Your task to perform on an android device: Check the weather Image 0: 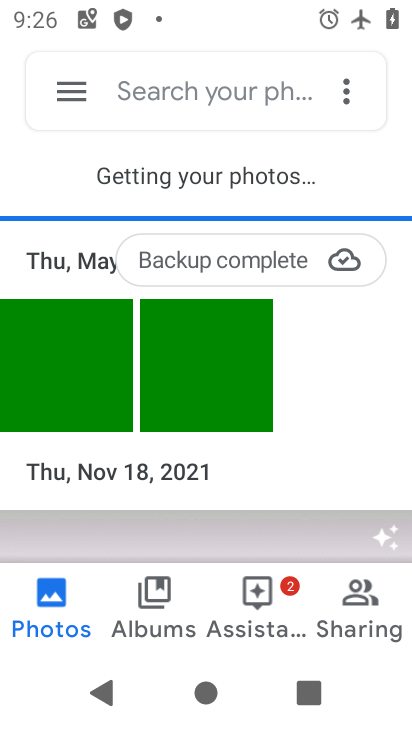
Step 0: press home button
Your task to perform on an android device: Check the weather Image 1: 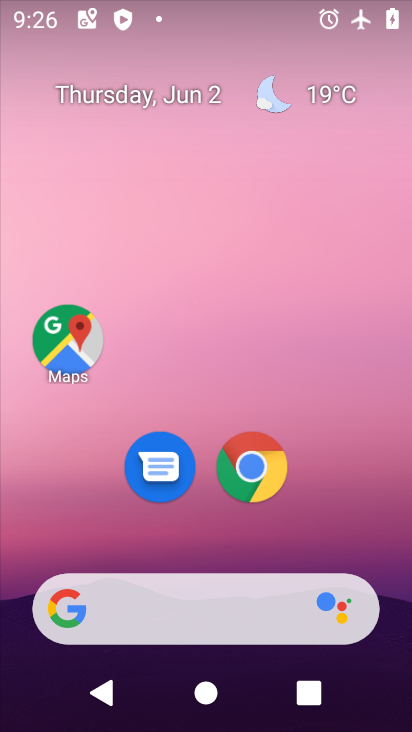
Step 1: click (191, 614)
Your task to perform on an android device: Check the weather Image 2: 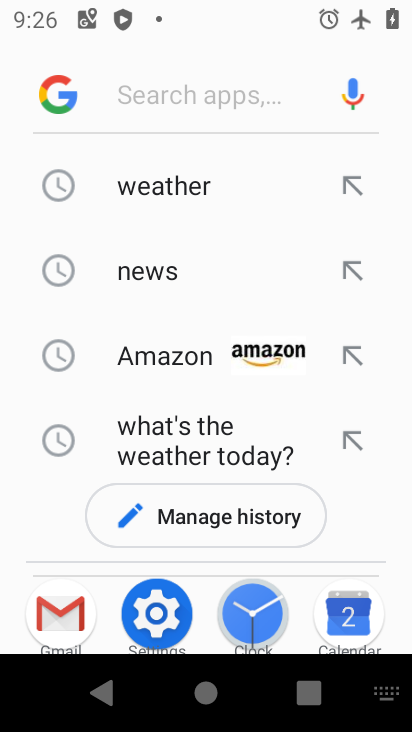
Step 2: click (157, 197)
Your task to perform on an android device: Check the weather Image 3: 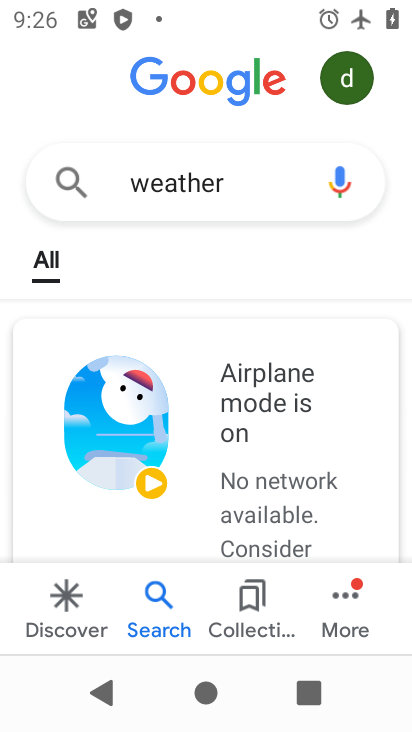
Step 3: task complete